Your task to perform on an android device: Find coffee shops on Maps Image 0: 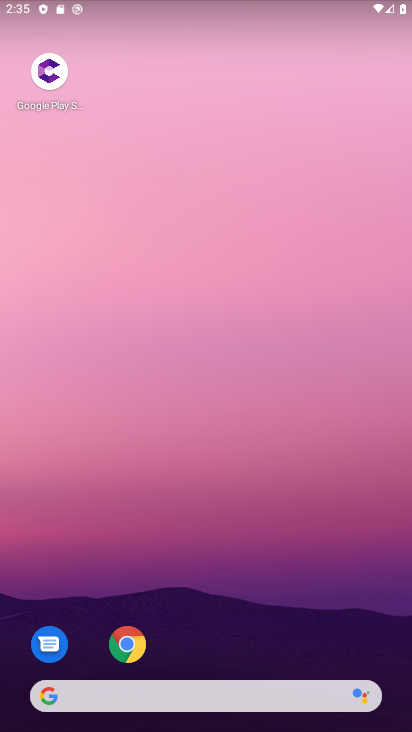
Step 0: drag from (245, 598) to (237, 127)
Your task to perform on an android device: Find coffee shops on Maps Image 1: 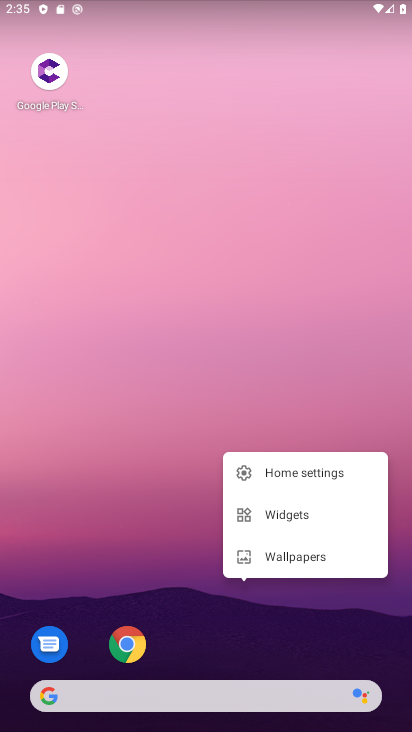
Step 1: click (185, 370)
Your task to perform on an android device: Find coffee shops on Maps Image 2: 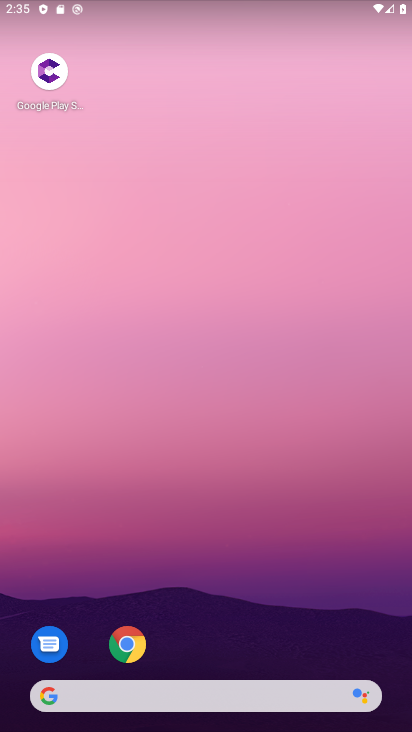
Step 2: drag from (252, 650) to (223, 103)
Your task to perform on an android device: Find coffee shops on Maps Image 3: 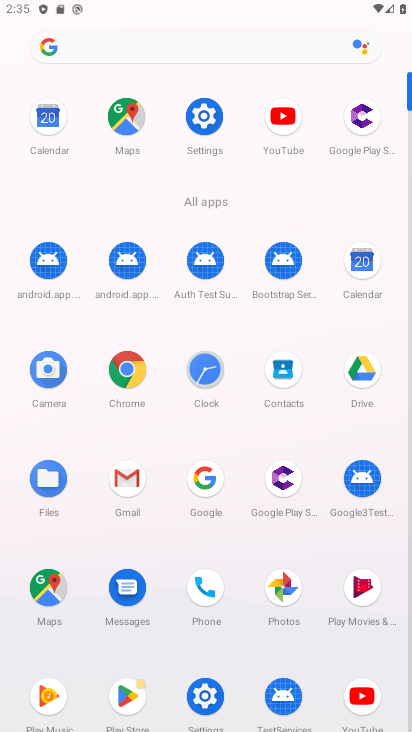
Step 3: click (64, 589)
Your task to perform on an android device: Find coffee shops on Maps Image 4: 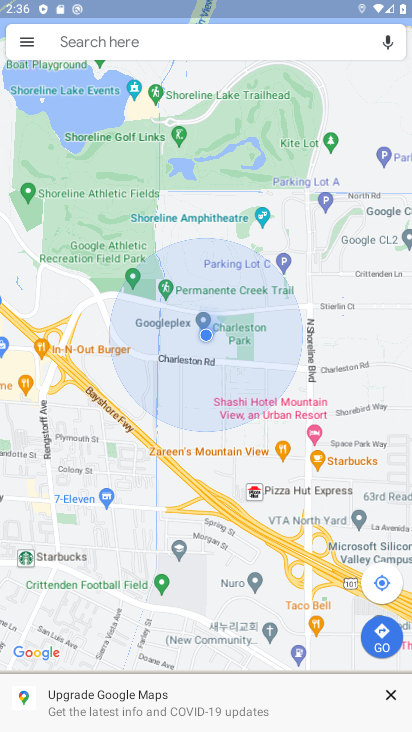
Step 4: click (65, 38)
Your task to perform on an android device: Find coffee shops on Maps Image 5: 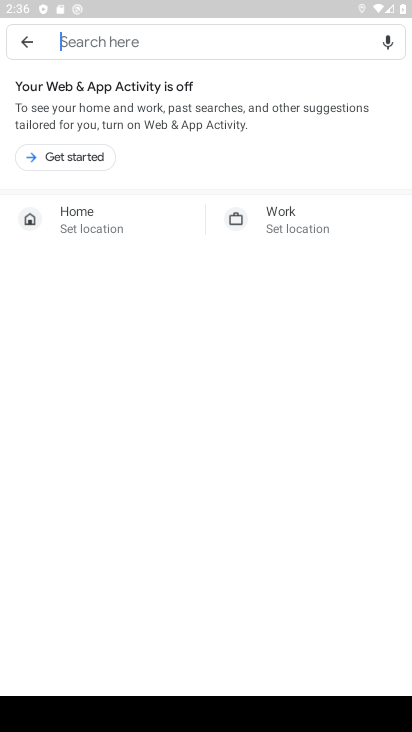
Step 5: type "coffee"
Your task to perform on an android device: Find coffee shops on Maps Image 6: 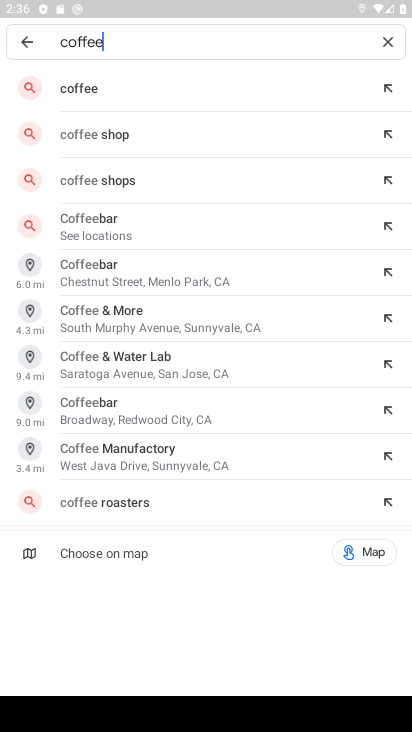
Step 6: click (132, 119)
Your task to perform on an android device: Find coffee shops on Maps Image 7: 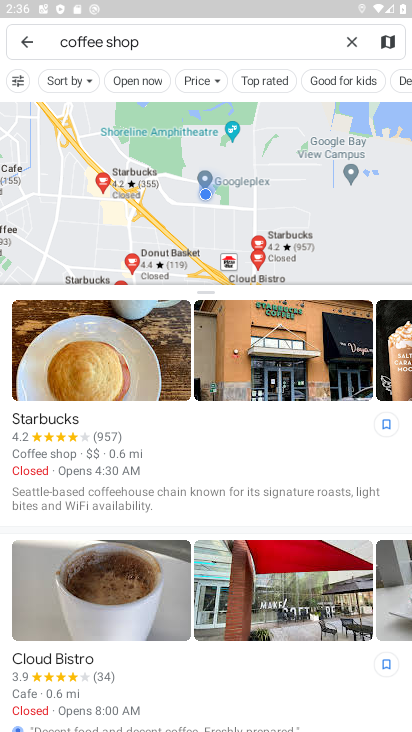
Step 7: task complete